Your task to perform on an android device: open app "Viber Messenger" Image 0: 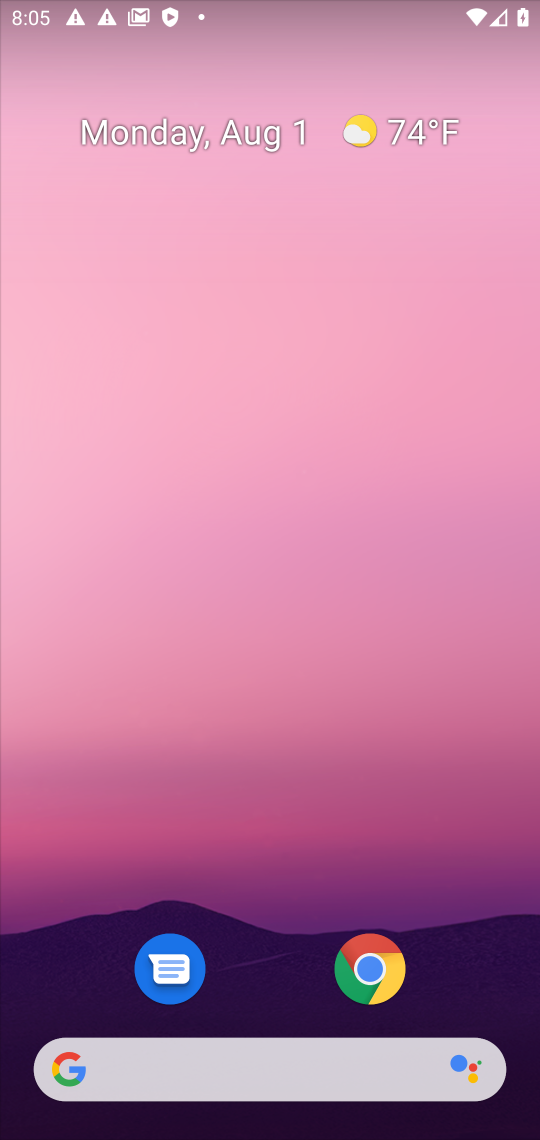
Step 0: drag from (205, 508) to (202, 19)
Your task to perform on an android device: open app "Viber Messenger" Image 1: 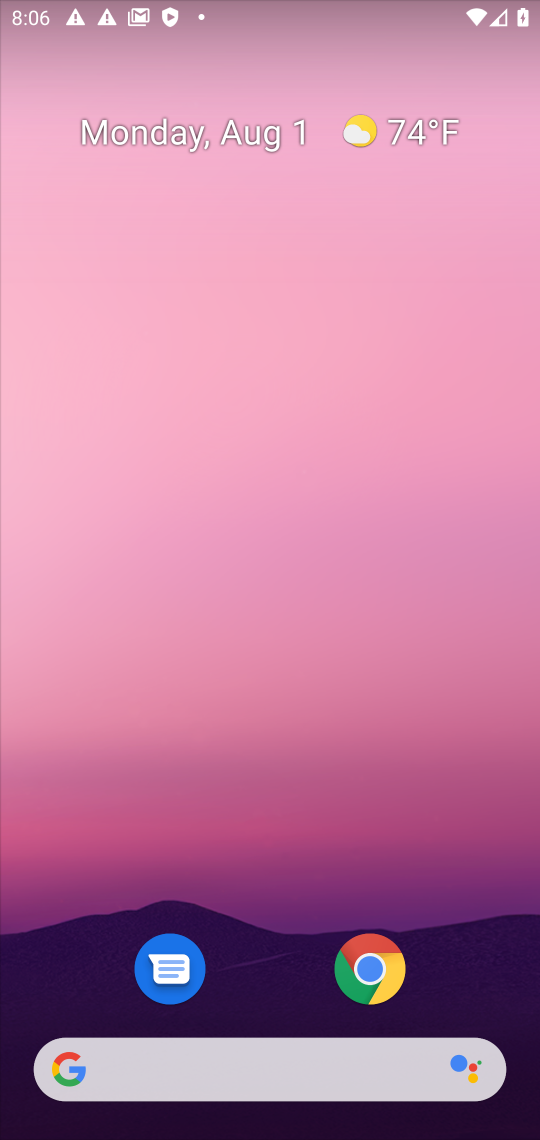
Step 1: drag from (293, 895) to (466, 0)
Your task to perform on an android device: open app "Viber Messenger" Image 2: 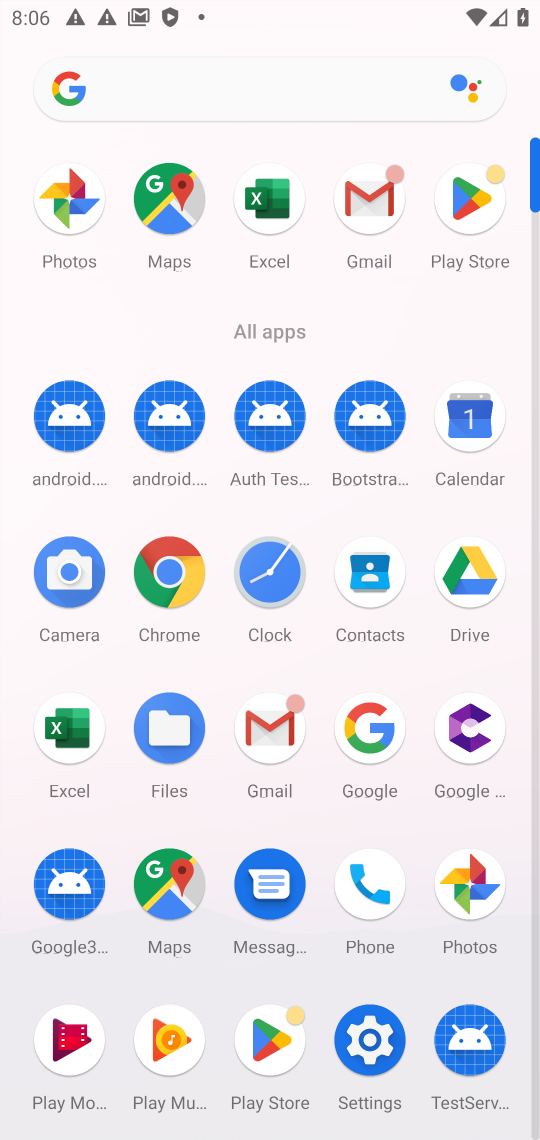
Step 2: click (464, 262)
Your task to perform on an android device: open app "Viber Messenger" Image 3: 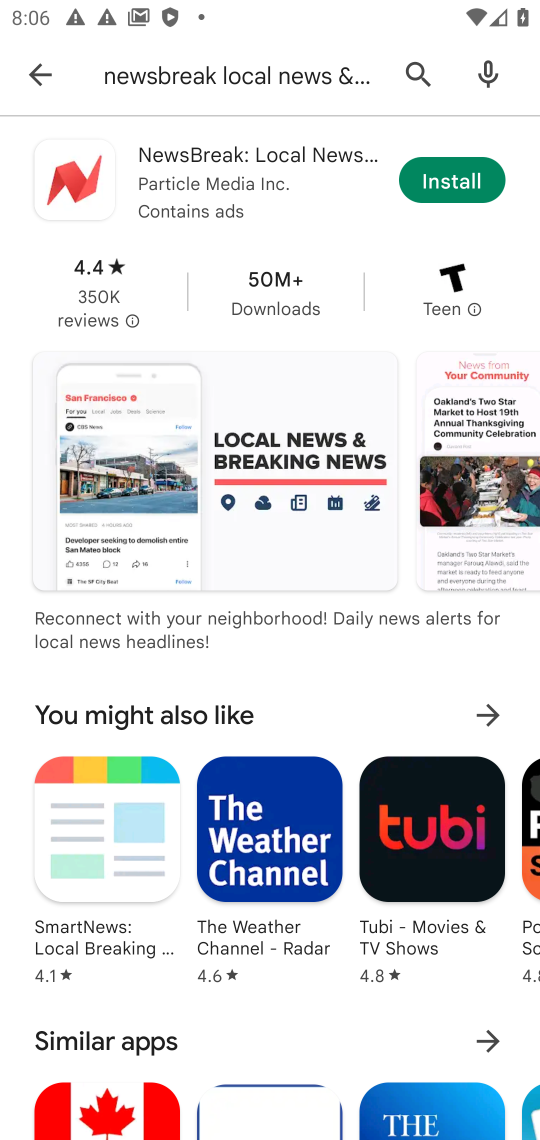
Step 3: click (40, 78)
Your task to perform on an android device: open app "Viber Messenger" Image 4: 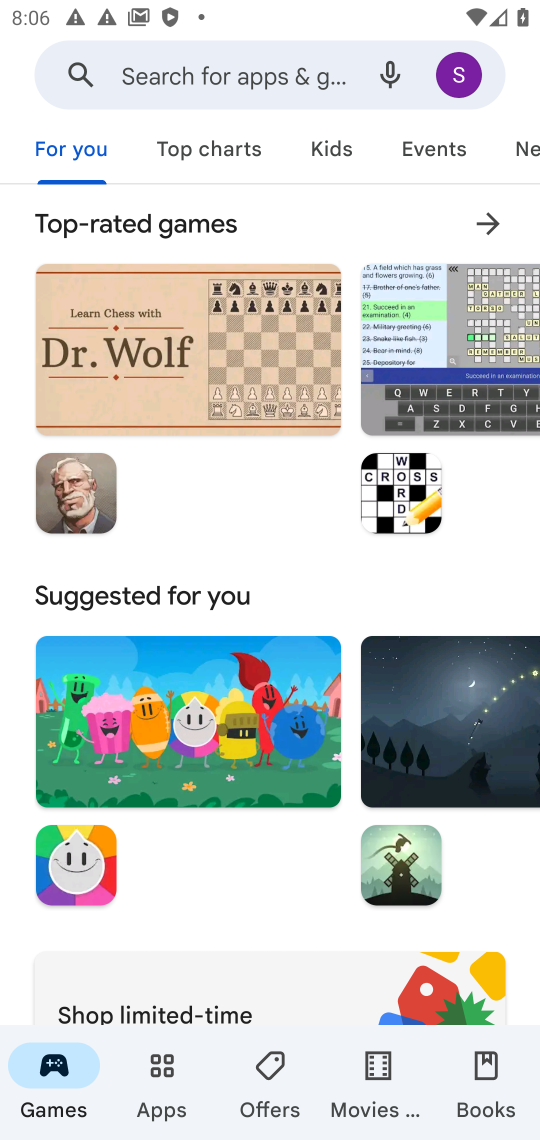
Step 4: click (272, 58)
Your task to perform on an android device: open app "Viber Messenger" Image 5: 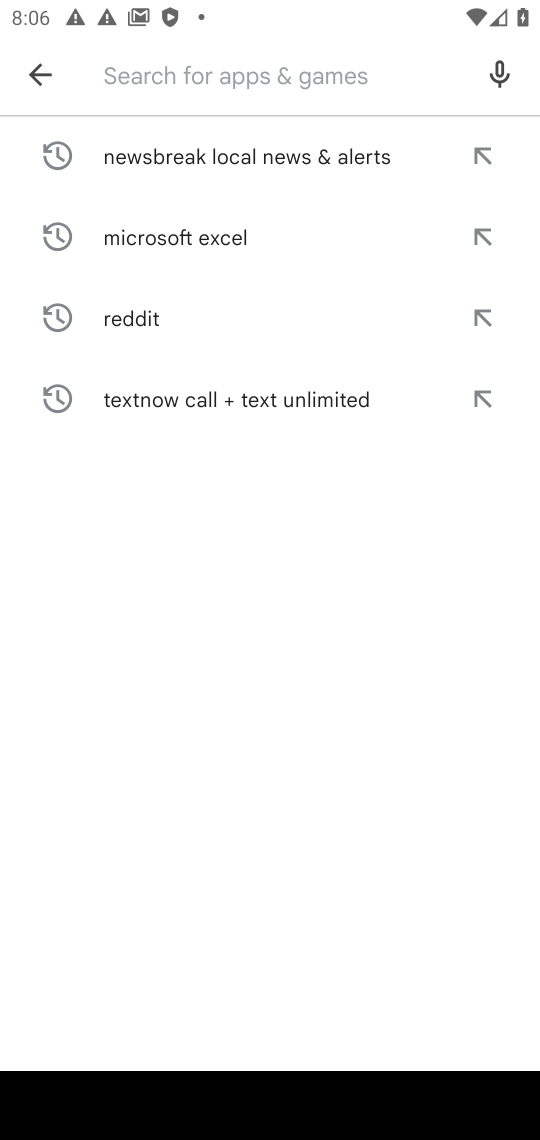
Step 5: type "Viber Messenger"
Your task to perform on an android device: open app "Viber Messenger" Image 6: 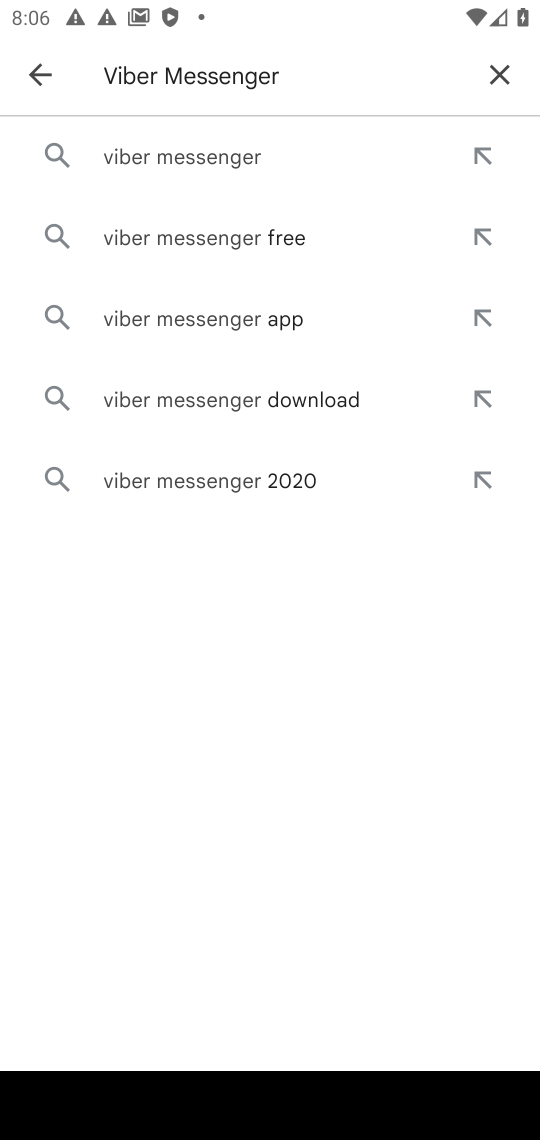
Step 6: click (166, 154)
Your task to perform on an android device: open app "Viber Messenger" Image 7: 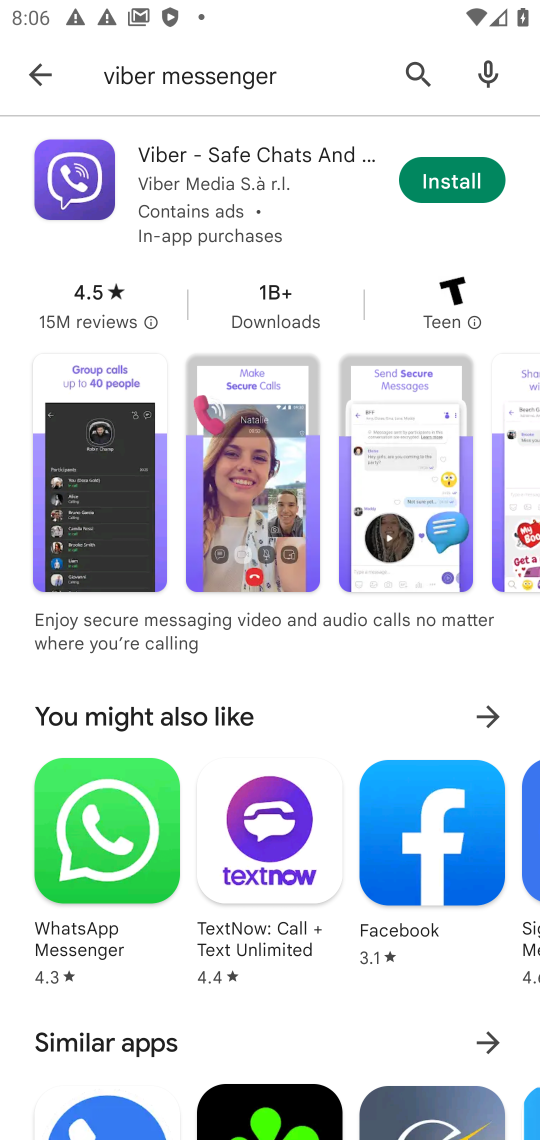
Step 7: click (475, 160)
Your task to perform on an android device: open app "Viber Messenger" Image 8: 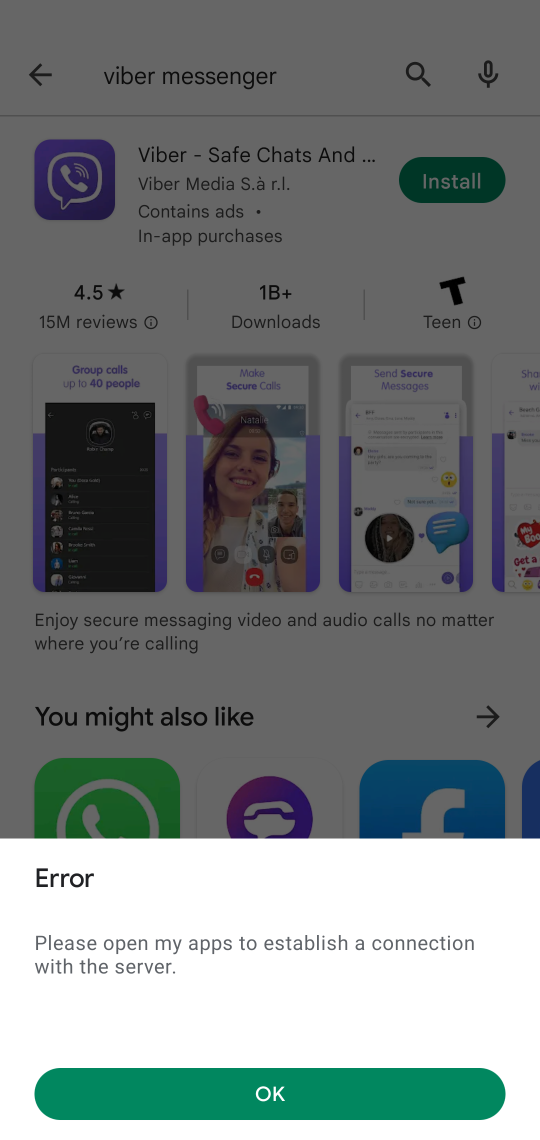
Step 8: click (247, 1095)
Your task to perform on an android device: open app "Viber Messenger" Image 9: 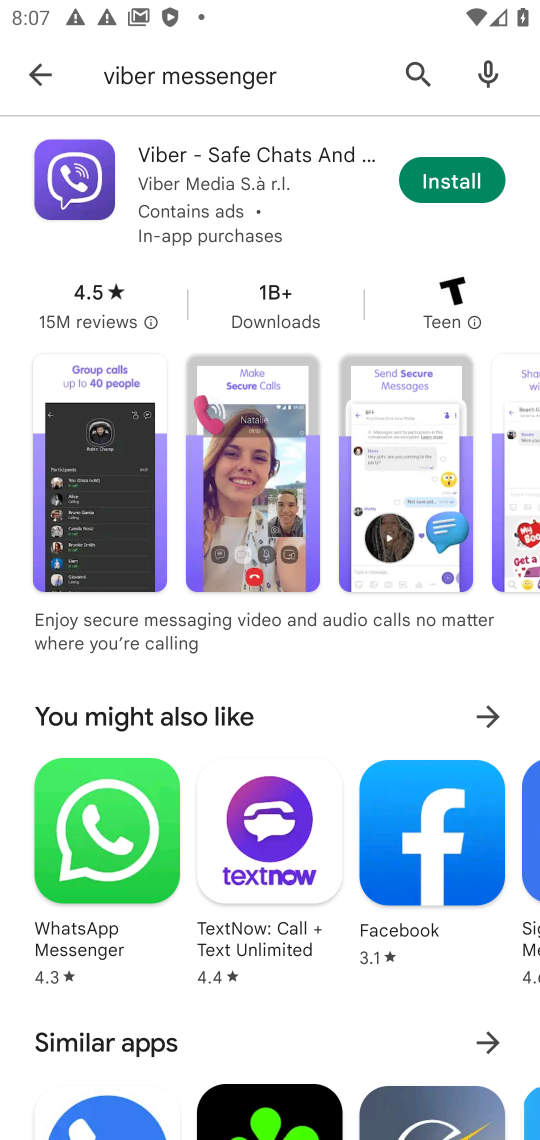
Step 9: click (429, 185)
Your task to perform on an android device: open app "Viber Messenger" Image 10: 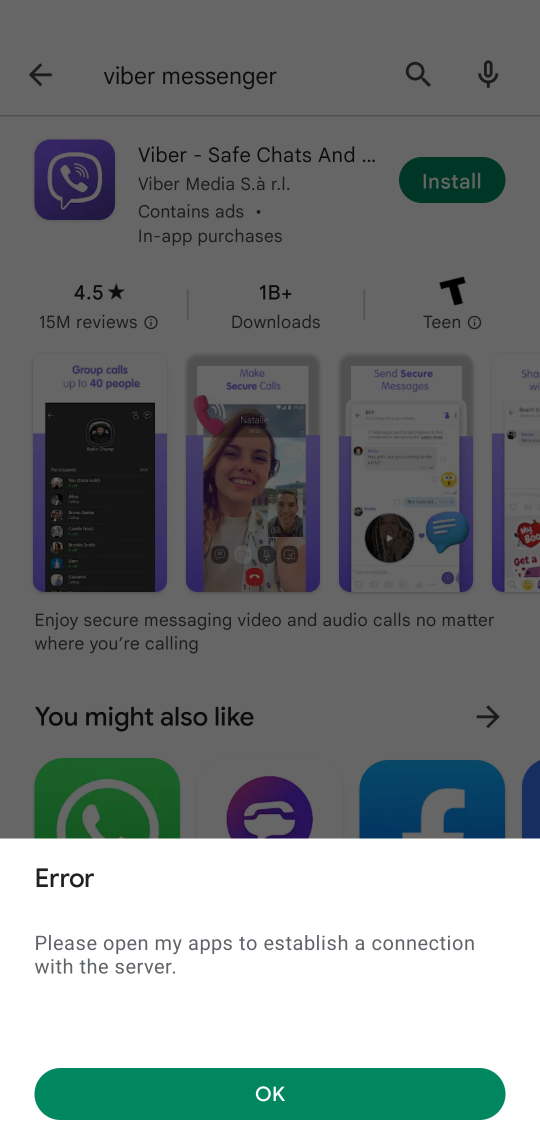
Step 10: click (285, 1106)
Your task to perform on an android device: open app "Viber Messenger" Image 11: 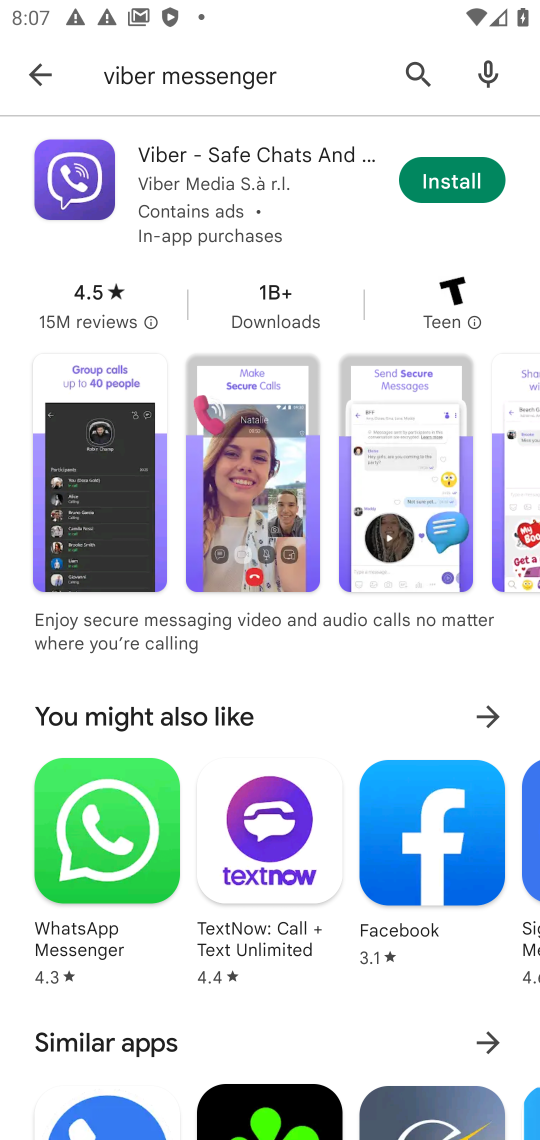
Step 11: task complete